Your task to perform on an android device: open the mobile data screen to see how much data has been used Image 0: 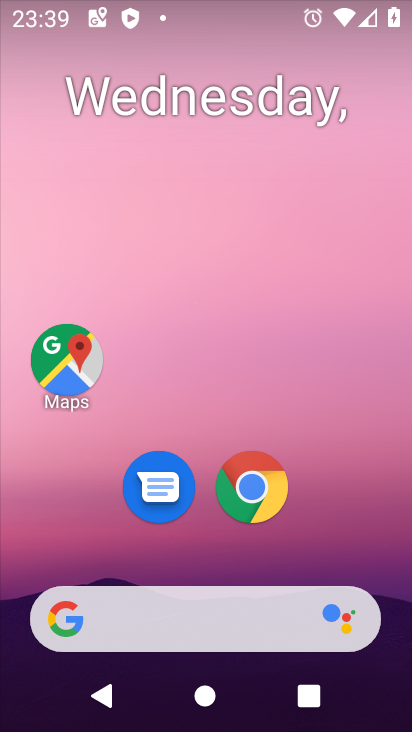
Step 0: drag from (348, 544) to (374, 14)
Your task to perform on an android device: open the mobile data screen to see how much data has been used Image 1: 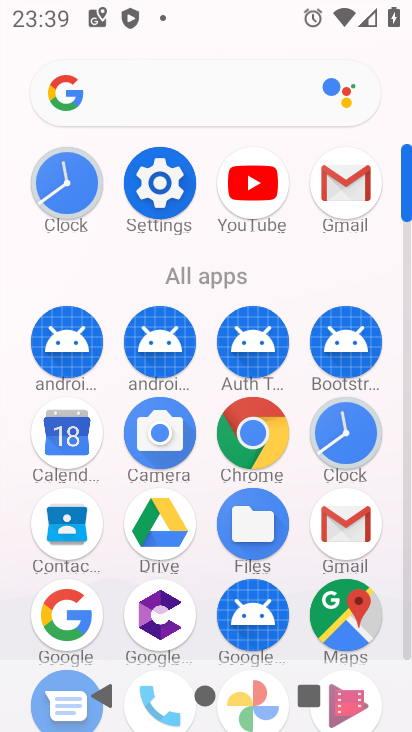
Step 1: click (158, 190)
Your task to perform on an android device: open the mobile data screen to see how much data has been used Image 2: 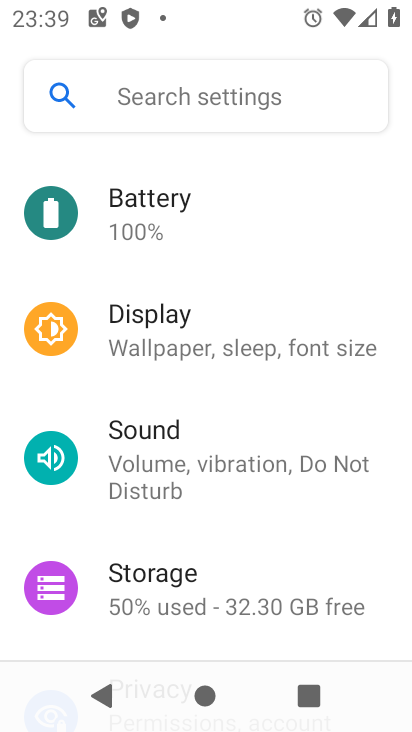
Step 2: drag from (324, 250) to (331, 518)
Your task to perform on an android device: open the mobile data screen to see how much data has been used Image 3: 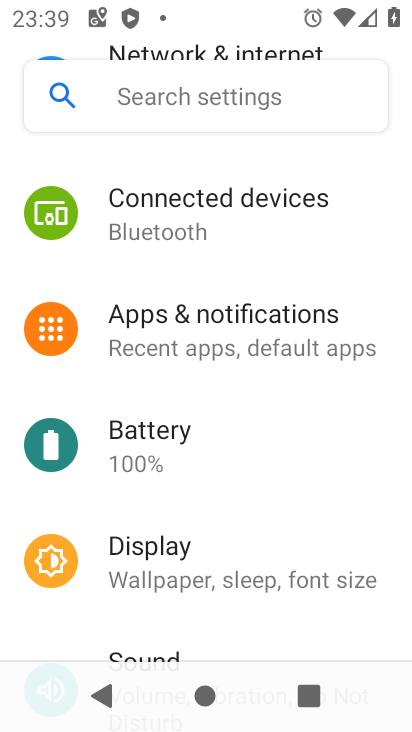
Step 3: drag from (359, 241) to (345, 580)
Your task to perform on an android device: open the mobile data screen to see how much data has been used Image 4: 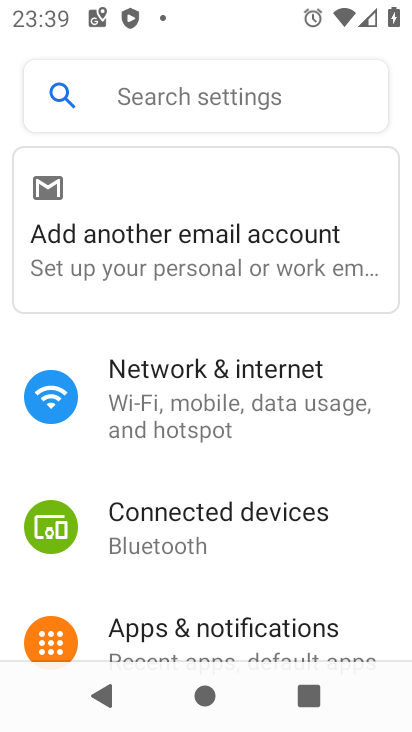
Step 4: click (178, 399)
Your task to perform on an android device: open the mobile data screen to see how much data has been used Image 5: 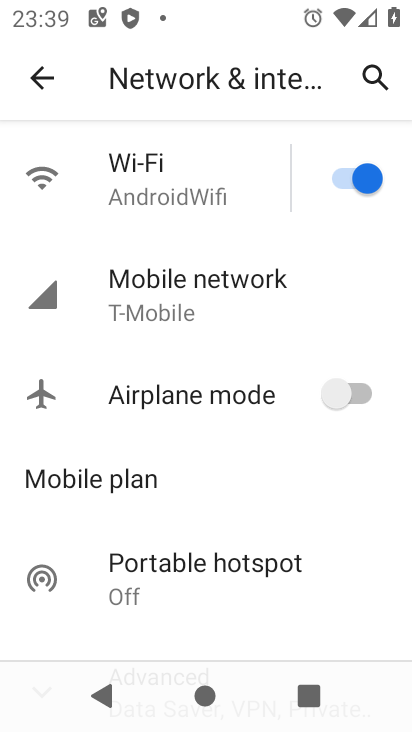
Step 5: click (146, 297)
Your task to perform on an android device: open the mobile data screen to see how much data has been used Image 6: 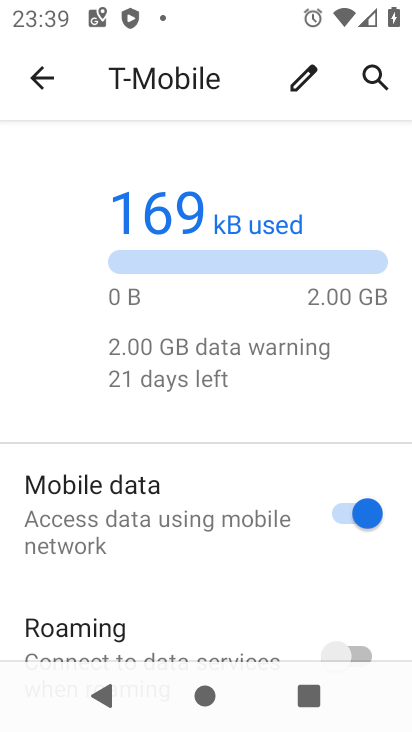
Step 6: drag from (177, 520) to (183, 142)
Your task to perform on an android device: open the mobile data screen to see how much data has been used Image 7: 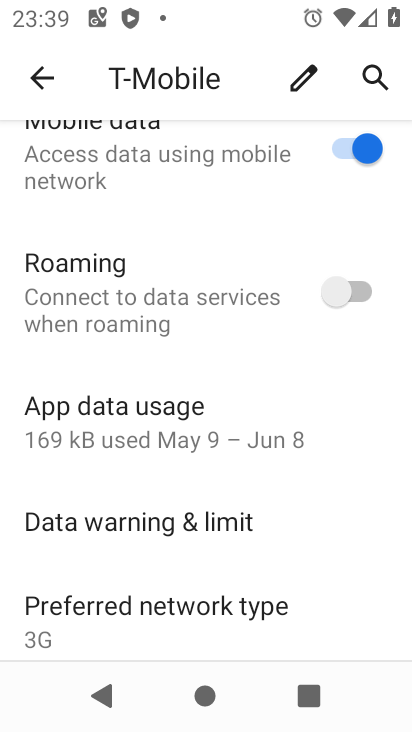
Step 7: click (105, 416)
Your task to perform on an android device: open the mobile data screen to see how much data has been used Image 8: 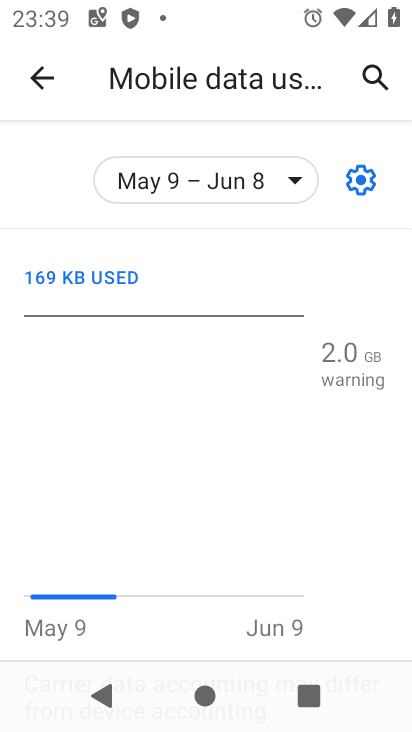
Step 8: task complete